Your task to perform on an android device: star an email in the gmail app Image 0: 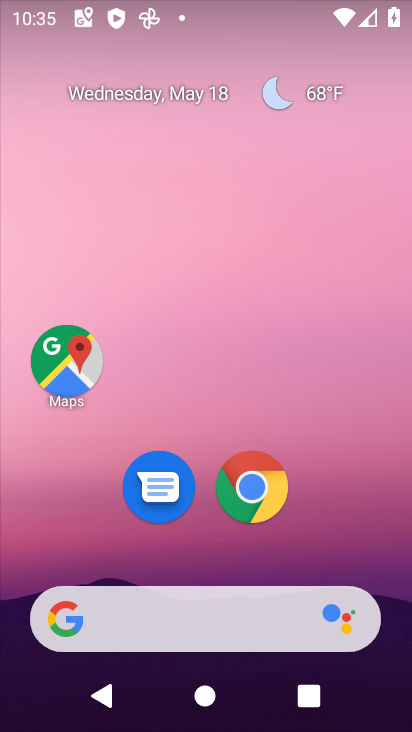
Step 0: drag from (375, 522) to (372, 113)
Your task to perform on an android device: star an email in the gmail app Image 1: 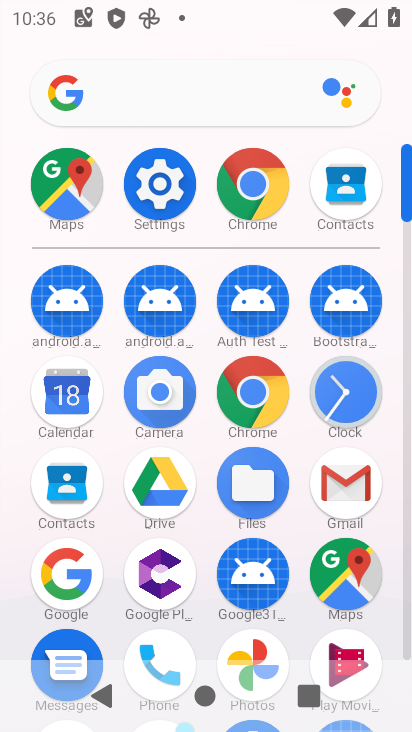
Step 1: click (346, 495)
Your task to perform on an android device: star an email in the gmail app Image 2: 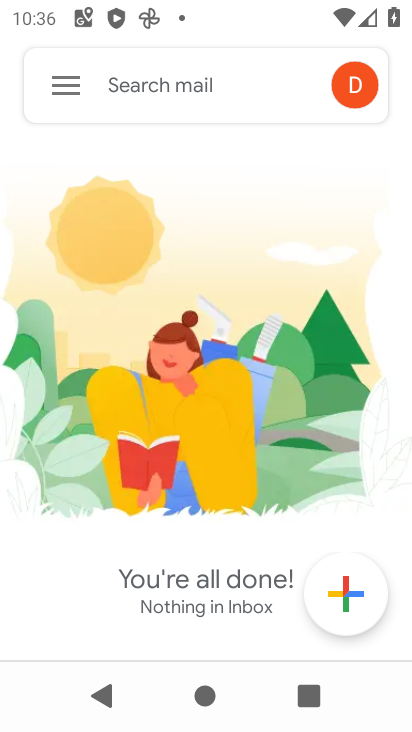
Step 2: click (82, 85)
Your task to perform on an android device: star an email in the gmail app Image 3: 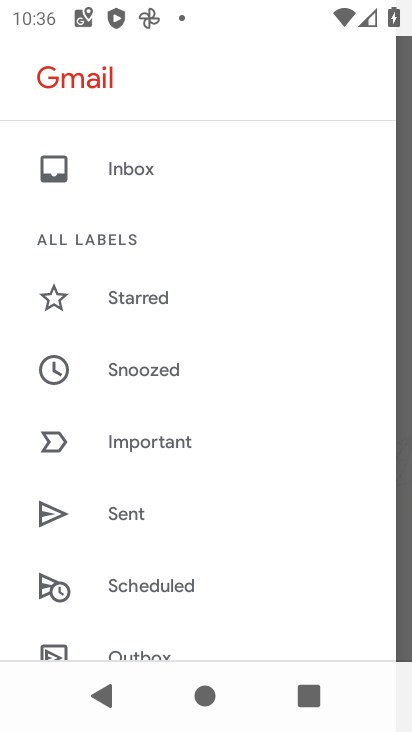
Step 3: drag from (219, 521) to (215, 225)
Your task to perform on an android device: star an email in the gmail app Image 4: 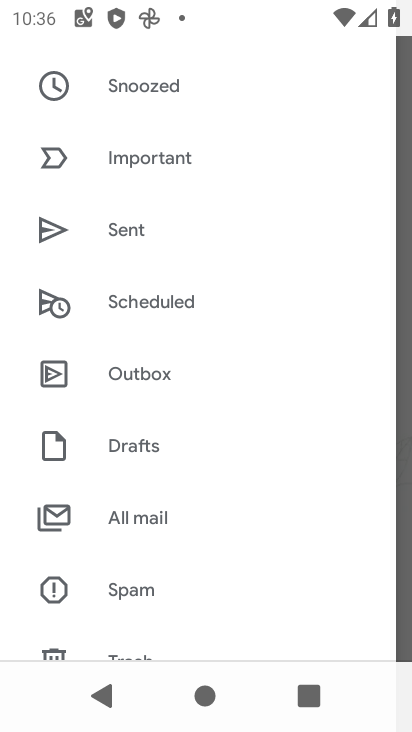
Step 4: drag from (222, 203) to (216, 489)
Your task to perform on an android device: star an email in the gmail app Image 5: 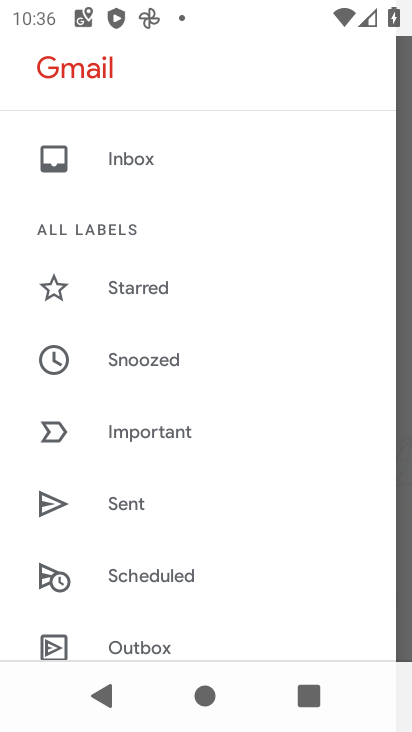
Step 5: drag from (203, 596) to (233, 366)
Your task to perform on an android device: star an email in the gmail app Image 6: 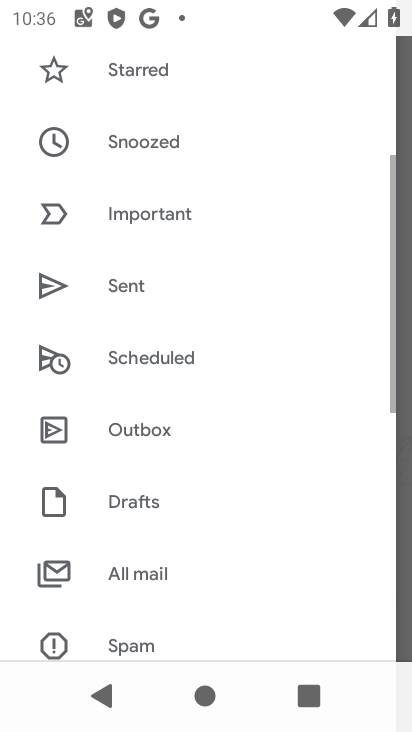
Step 6: click (208, 566)
Your task to perform on an android device: star an email in the gmail app Image 7: 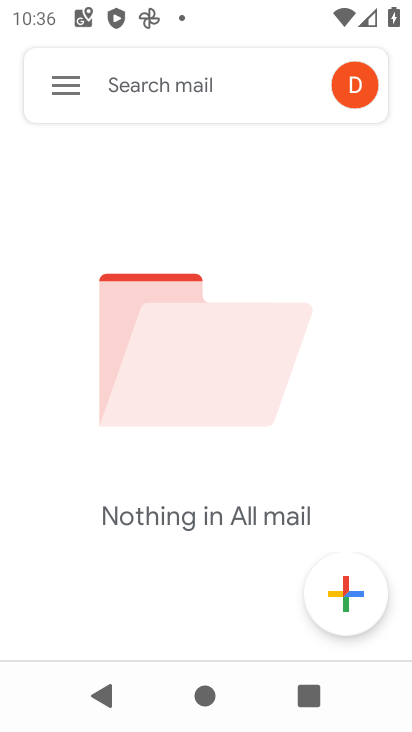
Step 7: task complete